Your task to perform on an android device: check out phone information Image 0: 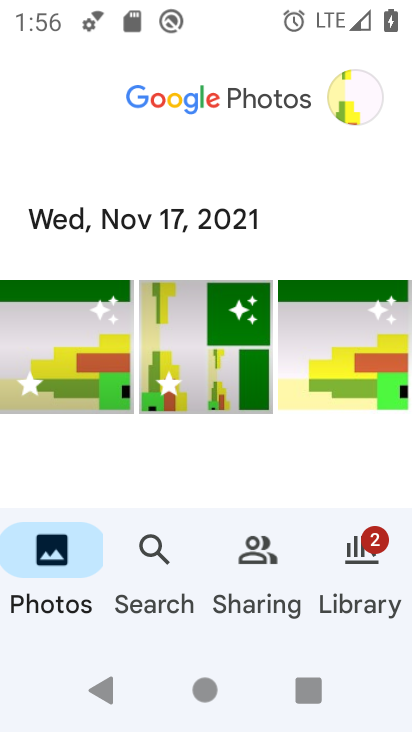
Step 0: press home button
Your task to perform on an android device: check out phone information Image 1: 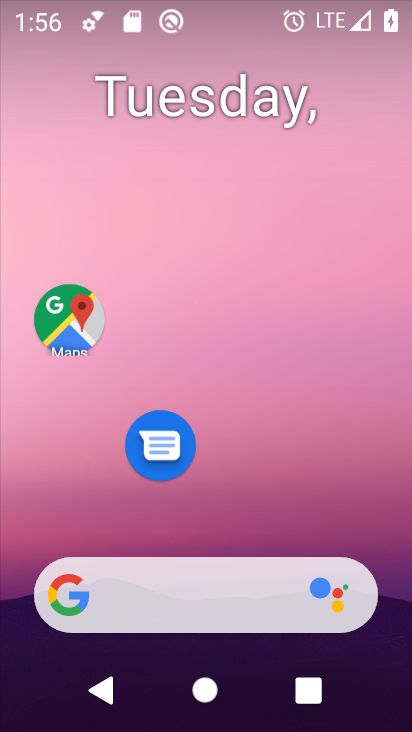
Step 1: drag from (261, 485) to (216, 4)
Your task to perform on an android device: check out phone information Image 2: 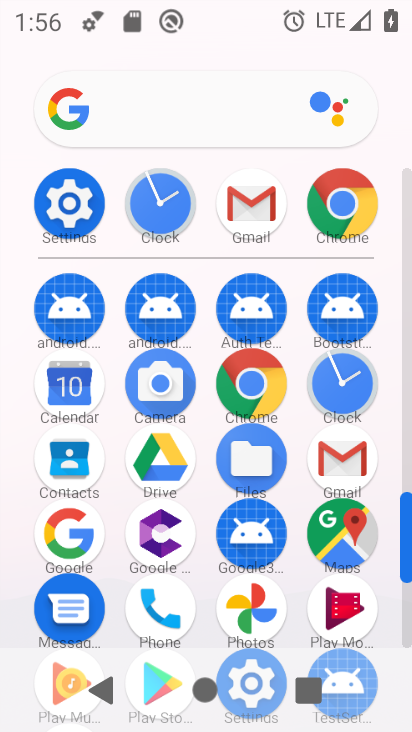
Step 2: click (71, 205)
Your task to perform on an android device: check out phone information Image 3: 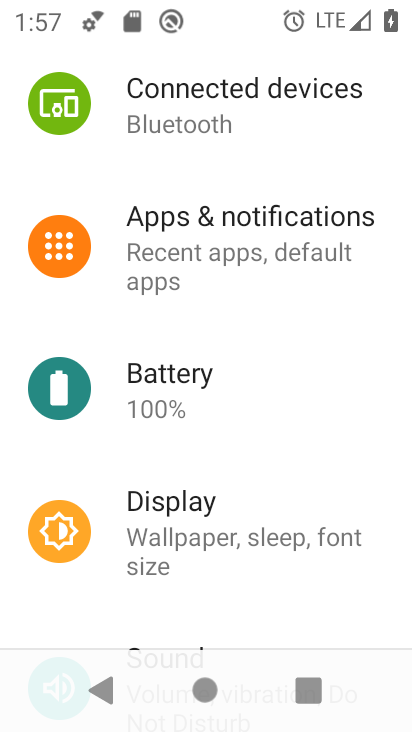
Step 3: drag from (210, 168) to (213, 535)
Your task to perform on an android device: check out phone information Image 4: 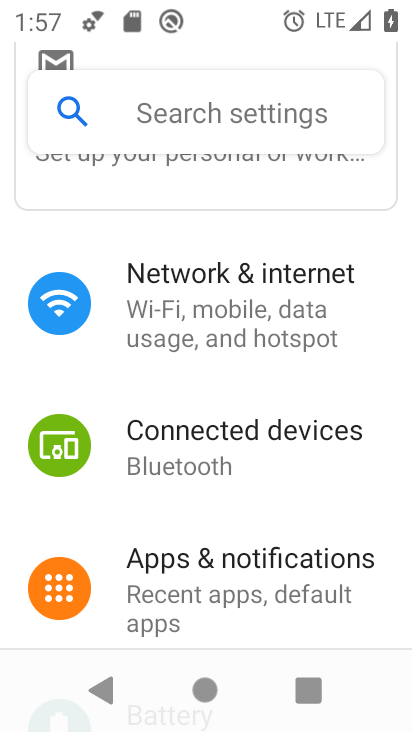
Step 4: drag from (212, 379) to (228, 650)
Your task to perform on an android device: check out phone information Image 5: 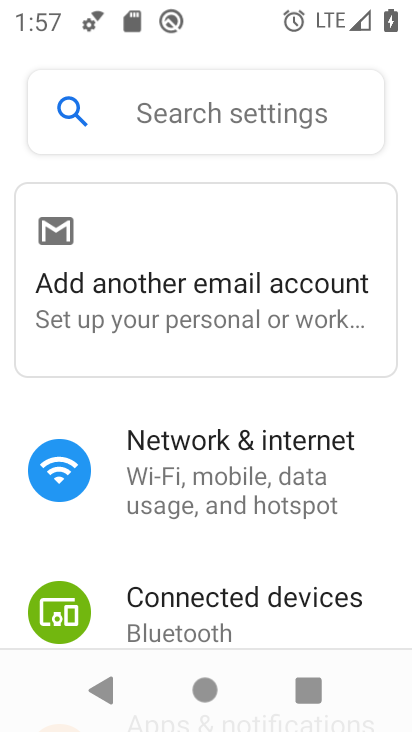
Step 5: drag from (223, 542) to (183, 267)
Your task to perform on an android device: check out phone information Image 6: 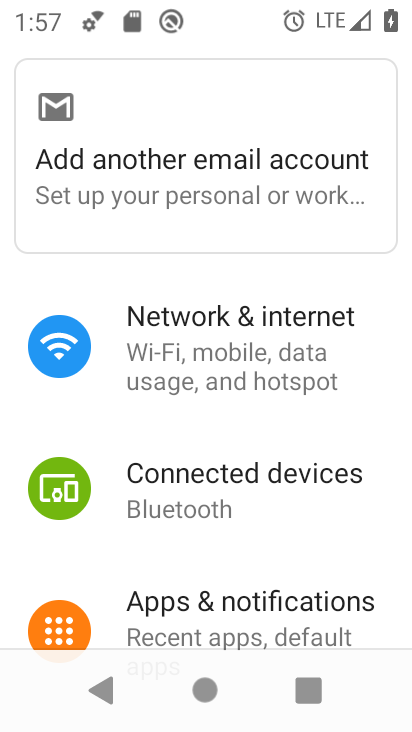
Step 6: drag from (241, 537) to (231, 175)
Your task to perform on an android device: check out phone information Image 7: 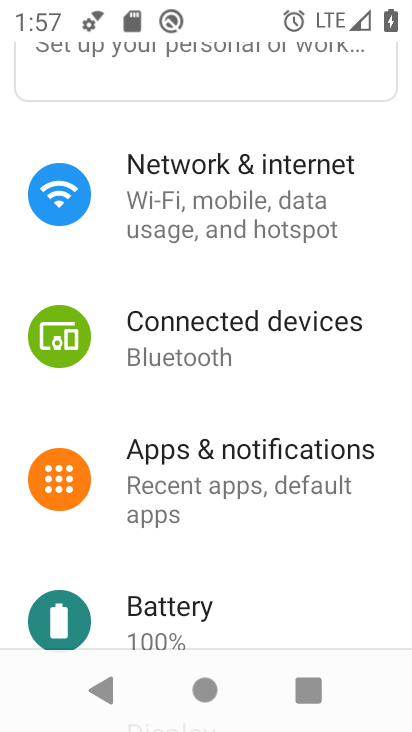
Step 7: drag from (230, 558) to (201, 223)
Your task to perform on an android device: check out phone information Image 8: 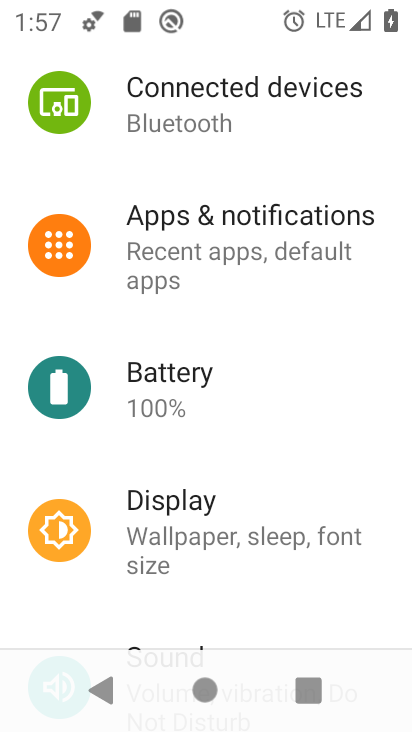
Step 8: drag from (185, 455) to (171, 82)
Your task to perform on an android device: check out phone information Image 9: 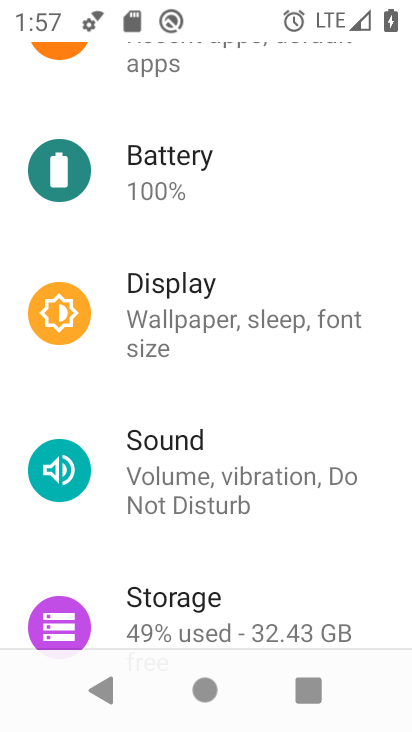
Step 9: drag from (187, 546) to (160, 107)
Your task to perform on an android device: check out phone information Image 10: 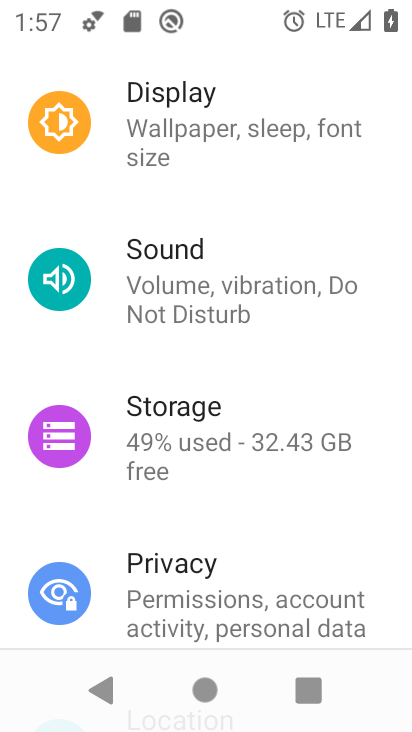
Step 10: drag from (188, 505) to (163, 108)
Your task to perform on an android device: check out phone information Image 11: 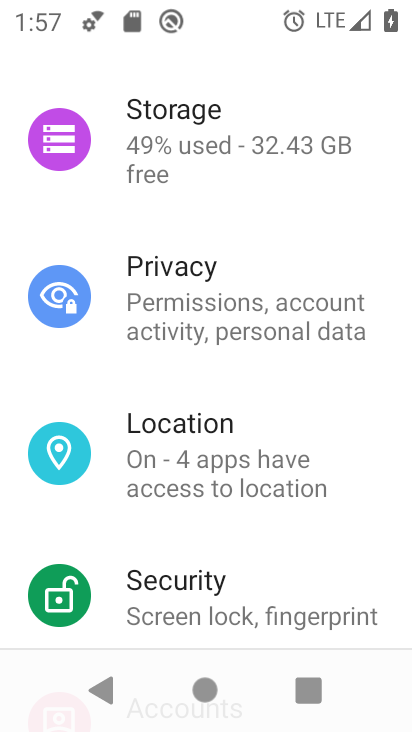
Step 11: drag from (235, 524) to (193, 182)
Your task to perform on an android device: check out phone information Image 12: 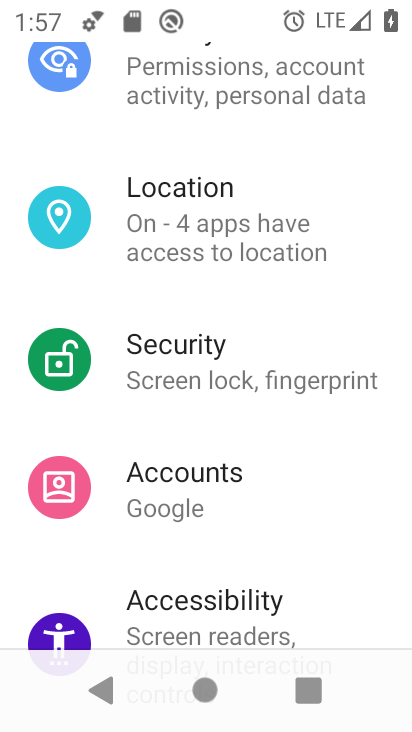
Step 12: drag from (252, 532) to (212, 135)
Your task to perform on an android device: check out phone information Image 13: 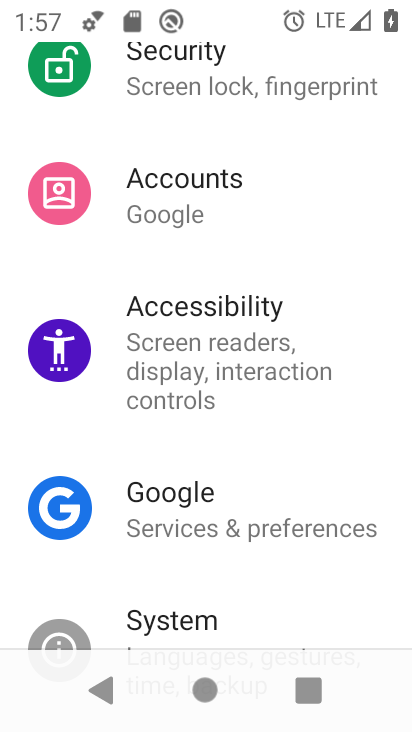
Step 13: drag from (213, 455) to (194, 88)
Your task to perform on an android device: check out phone information Image 14: 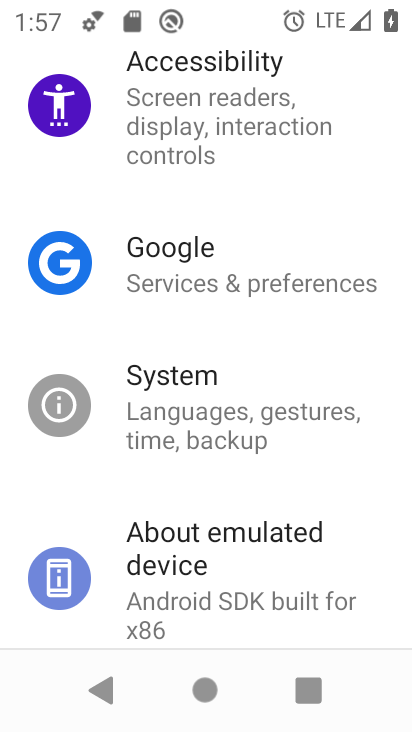
Step 14: click (192, 557)
Your task to perform on an android device: check out phone information Image 15: 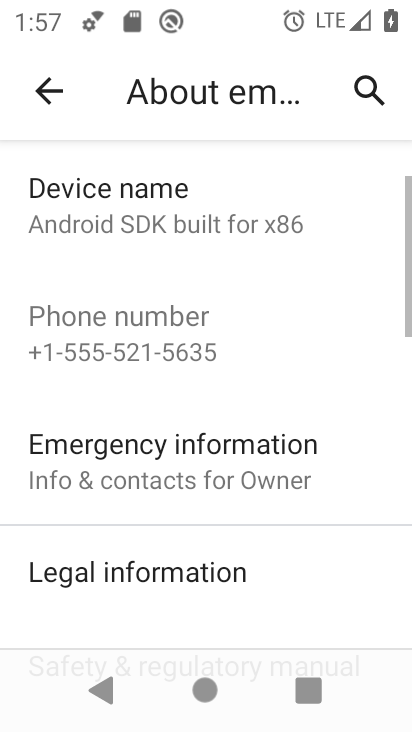
Step 15: task complete